Your task to perform on an android device: Do I have any events this weekend? Image 0: 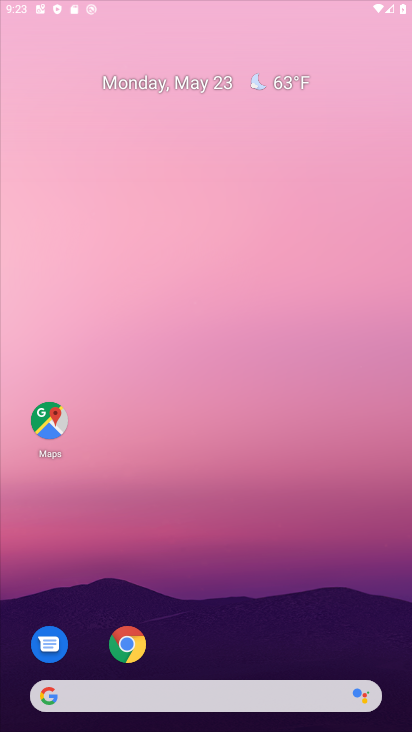
Step 0: press home button
Your task to perform on an android device: Do I have any events this weekend? Image 1: 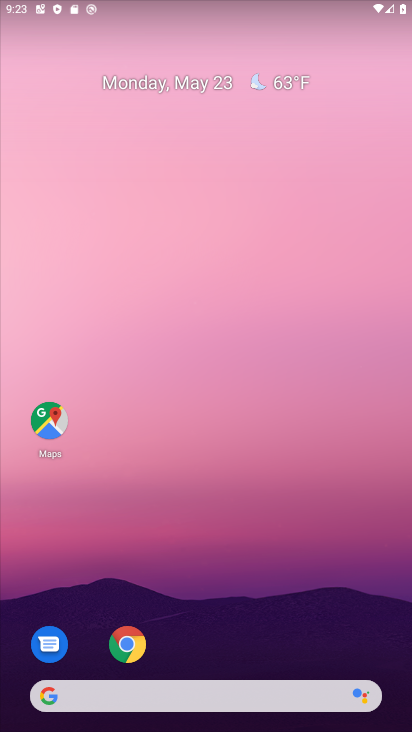
Step 1: drag from (227, 662) to (243, 77)
Your task to perform on an android device: Do I have any events this weekend? Image 2: 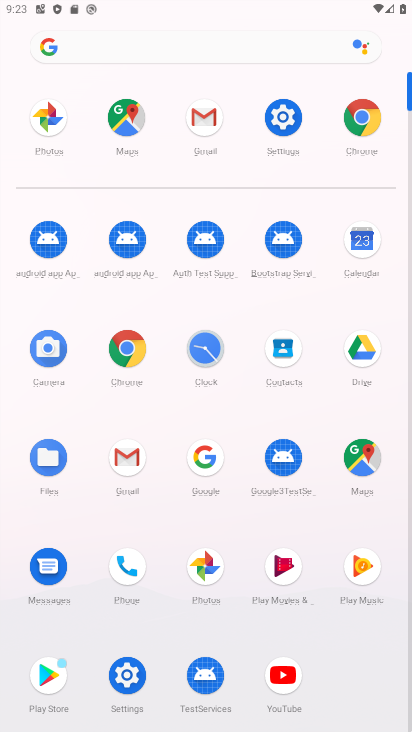
Step 2: click (364, 239)
Your task to perform on an android device: Do I have any events this weekend? Image 3: 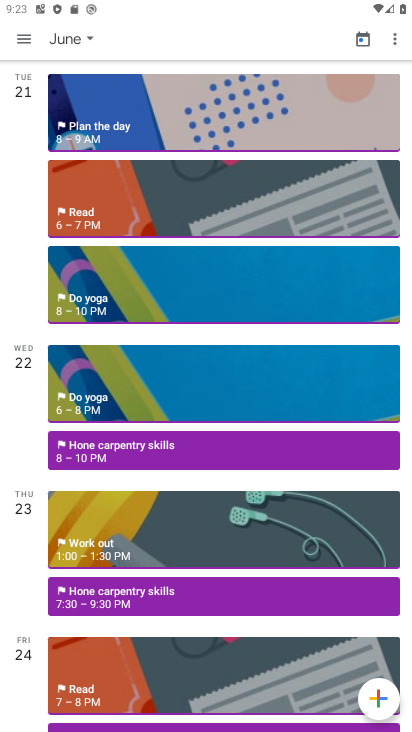
Step 3: click (76, 41)
Your task to perform on an android device: Do I have any events this weekend? Image 4: 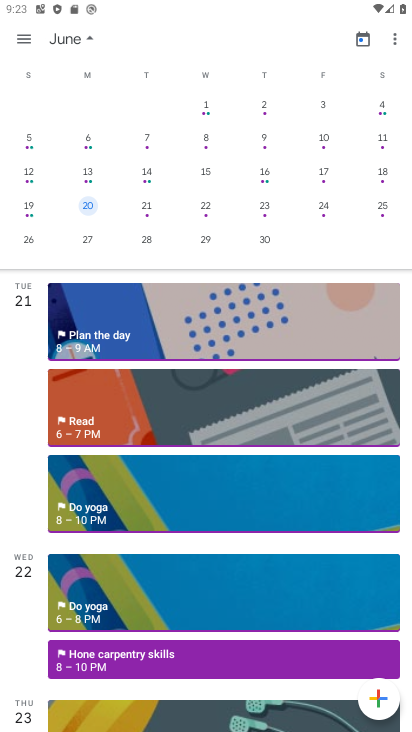
Step 4: drag from (61, 169) to (346, 178)
Your task to perform on an android device: Do I have any events this weekend? Image 5: 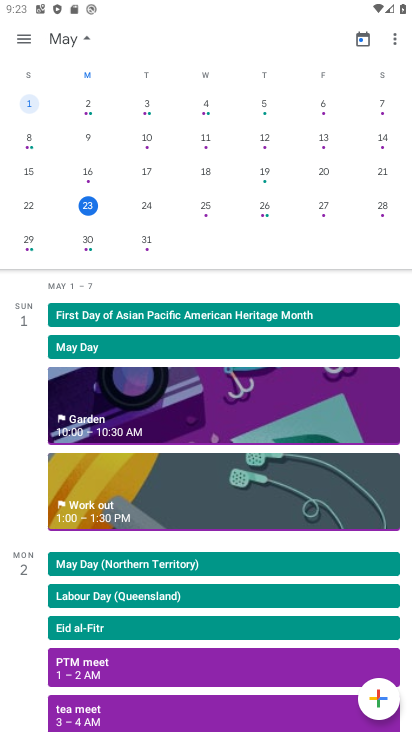
Step 5: click (89, 202)
Your task to perform on an android device: Do I have any events this weekend? Image 6: 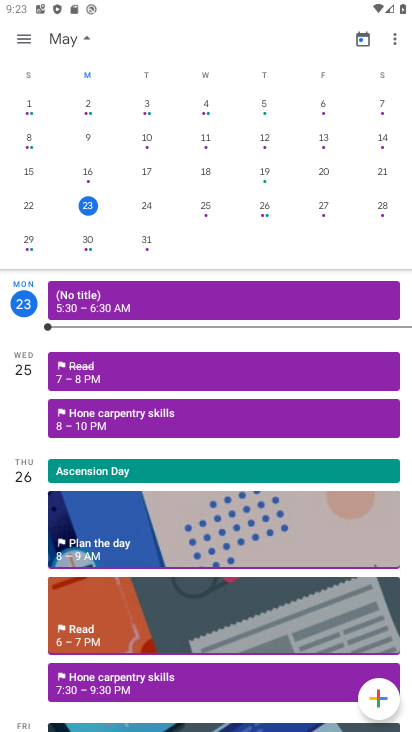
Step 6: drag from (9, 516) to (78, 235)
Your task to perform on an android device: Do I have any events this weekend? Image 7: 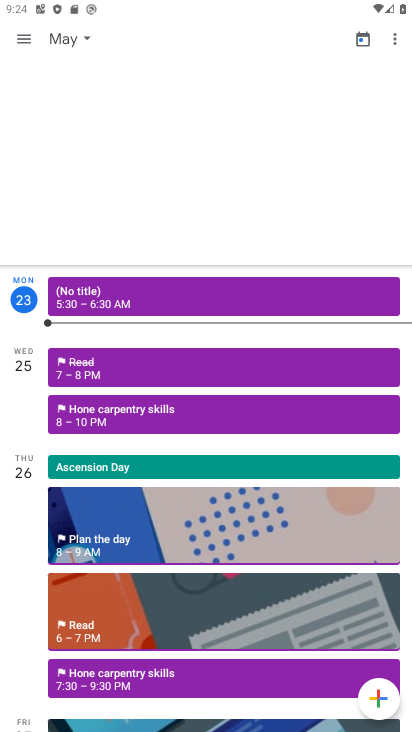
Step 7: drag from (30, 639) to (46, 259)
Your task to perform on an android device: Do I have any events this weekend? Image 8: 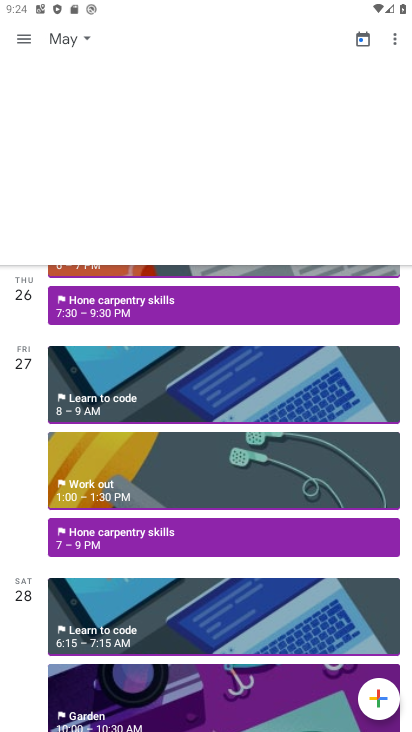
Step 8: click (79, 34)
Your task to perform on an android device: Do I have any events this weekend? Image 9: 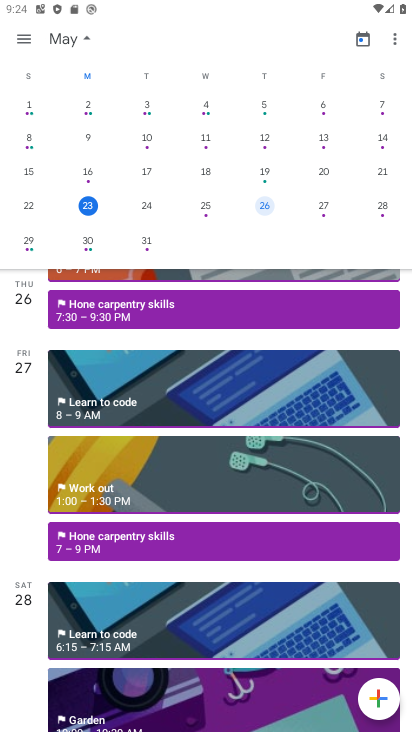
Step 9: click (88, 33)
Your task to perform on an android device: Do I have any events this weekend? Image 10: 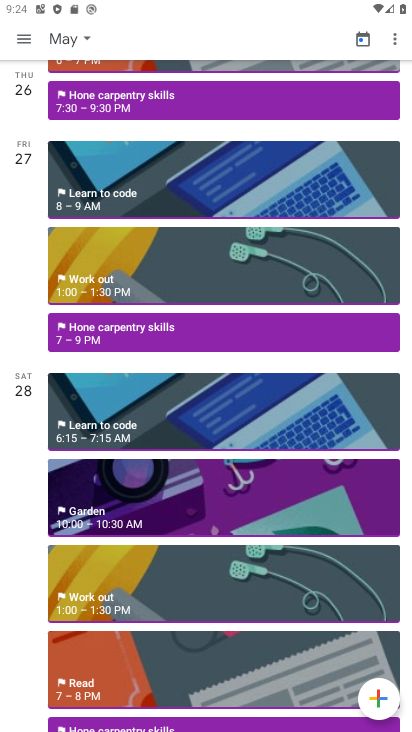
Step 10: task complete